Your task to perform on an android device: Open calendar and show me the fourth week of next month Image 0: 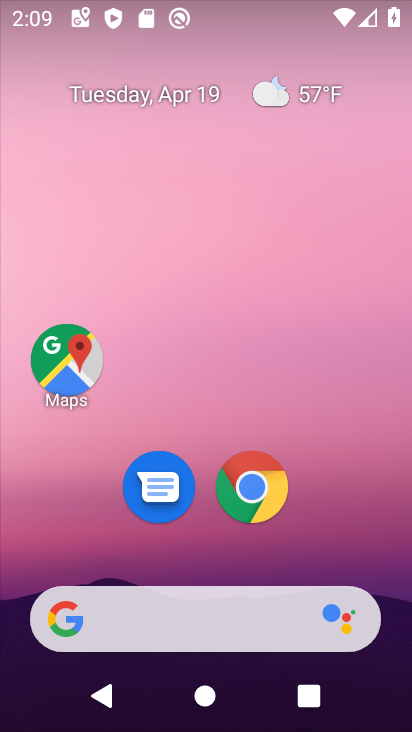
Step 0: click (169, 94)
Your task to perform on an android device: Open calendar and show me the fourth week of next month Image 1: 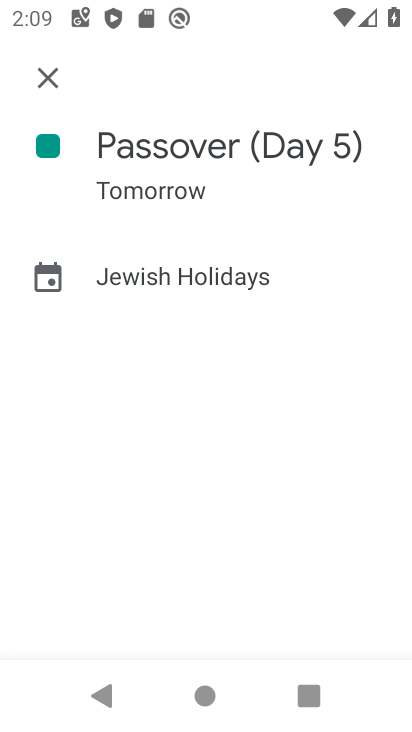
Step 1: click (49, 66)
Your task to perform on an android device: Open calendar and show me the fourth week of next month Image 2: 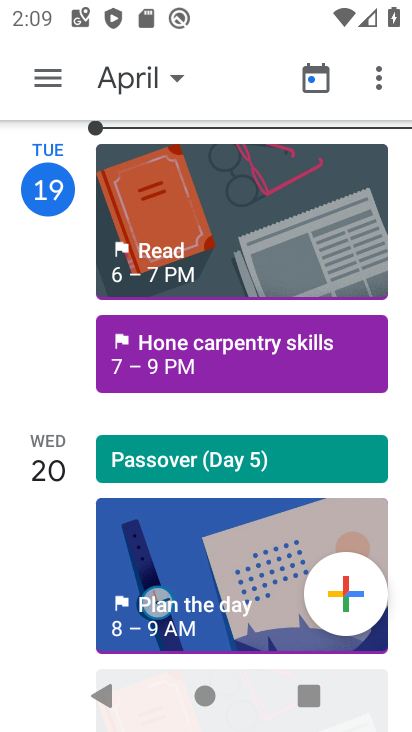
Step 2: click (117, 78)
Your task to perform on an android device: Open calendar and show me the fourth week of next month Image 3: 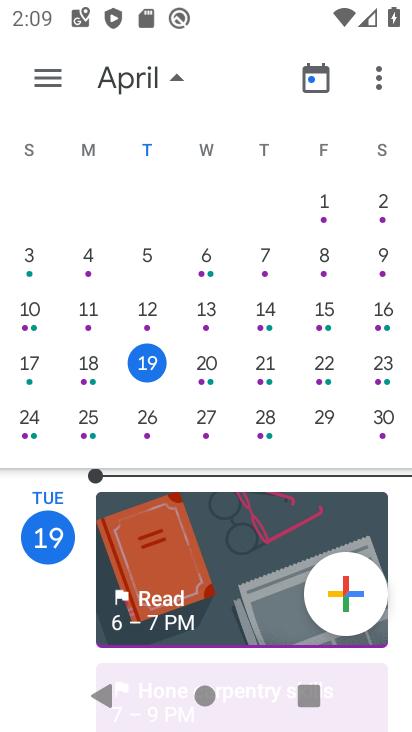
Step 3: drag from (369, 378) to (53, 376)
Your task to perform on an android device: Open calendar and show me the fourth week of next month Image 4: 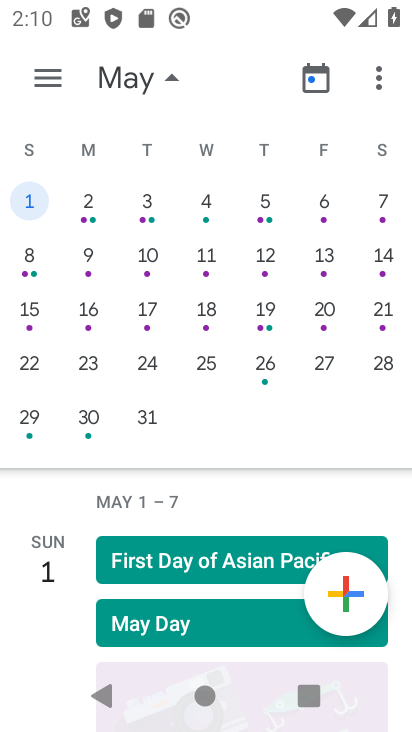
Step 4: click (258, 357)
Your task to perform on an android device: Open calendar and show me the fourth week of next month Image 5: 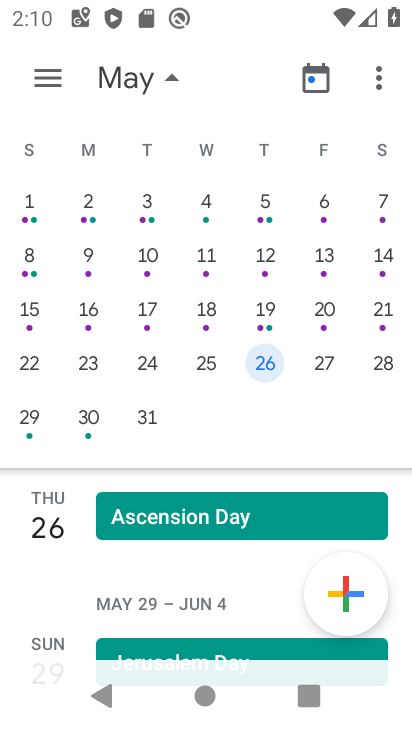
Step 5: task complete